Your task to perform on an android device: toggle pop-ups in chrome Image 0: 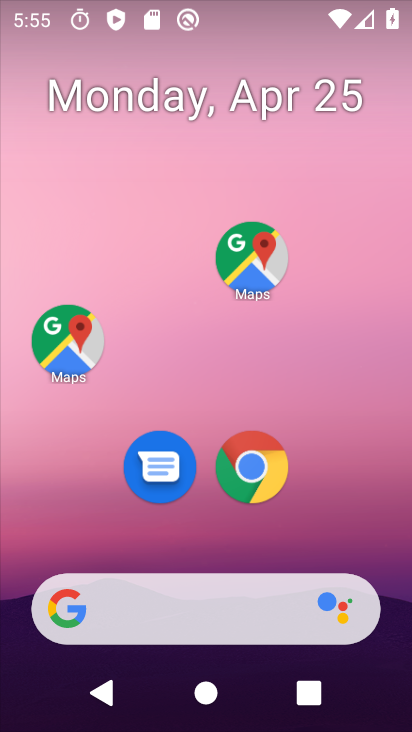
Step 0: drag from (266, 598) to (386, 4)
Your task to perform on an android device: toggle pop-ups in chrome Image 1: 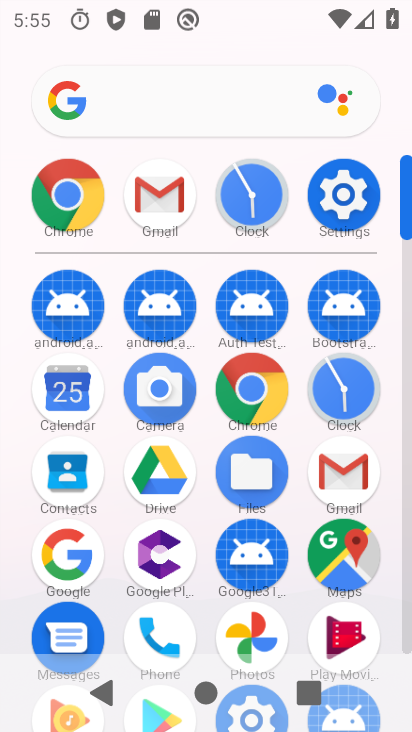
Step 1: click (239, 389)
Your task to perform on an android device: toggle pop-ups in chrome Image 2: 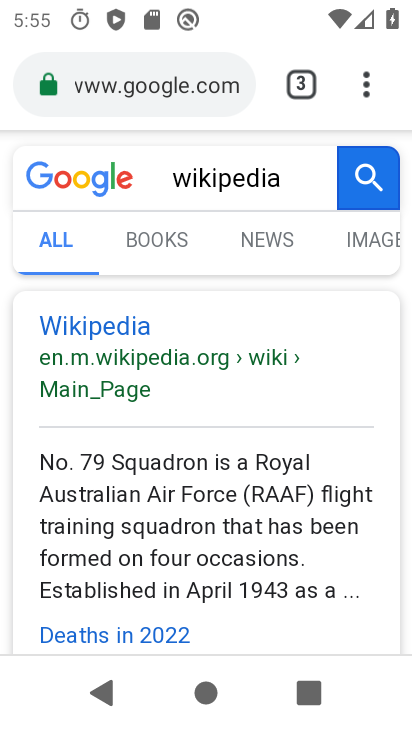
Step 2: drag from (366, 82) to (202, 523)
Your task to perform on an android device: toggle pop-ups in chrome Image 3: 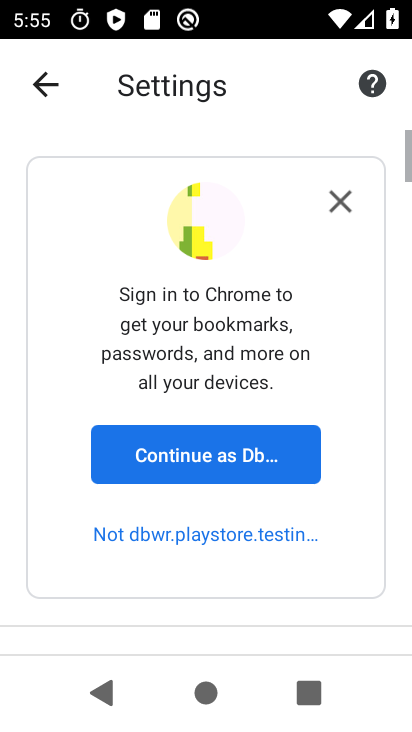
Step 3: drag from (306, 616) to (326, 5)
Your task to perform on an android device: toggle pop-ups in chrome Image 4: 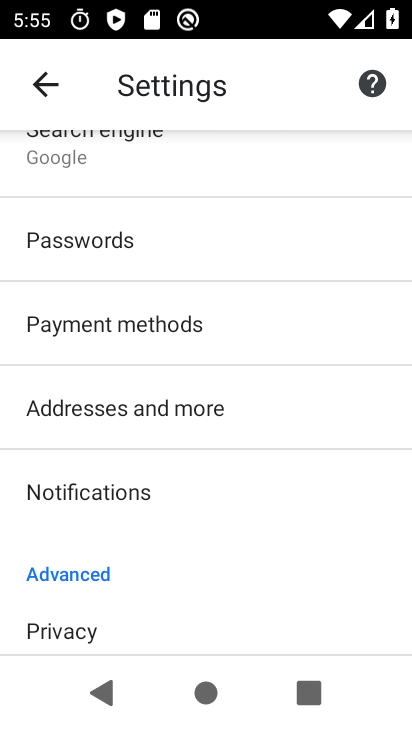
Step 4: drag from (301, 596) to (334, 105)
Your task to perform on an android device: toggle pop-ups in chrome Image 5: 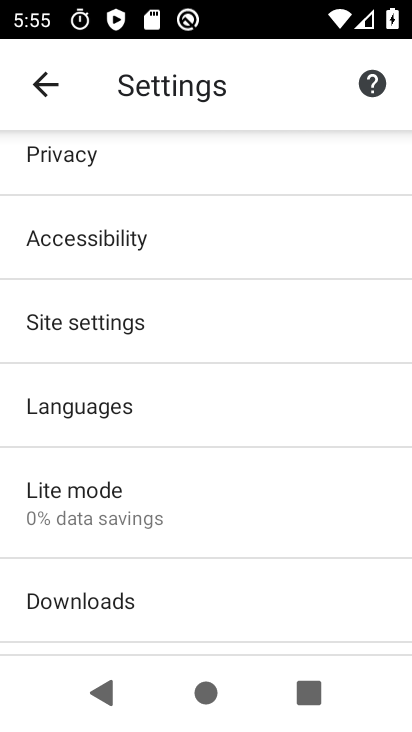
Step 5: click (202, 339)
Your task to perform on an android device: toggle pop-ups in chrome Image 6: 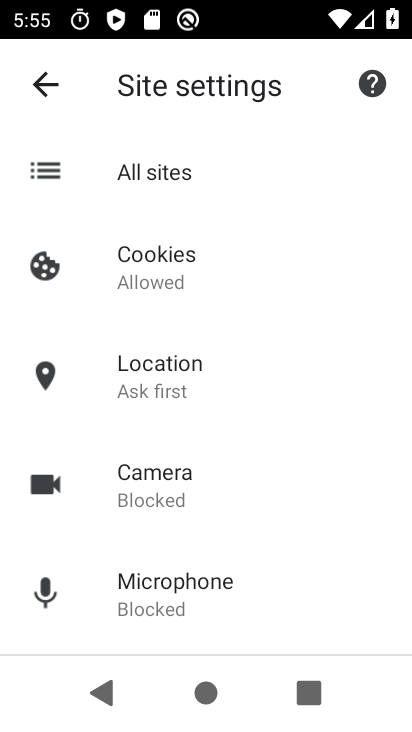
Step 6: drag from (254, 593) to (219, 84)
Your task to perform on an android device: toggle pop-ups in chrome Image 7: 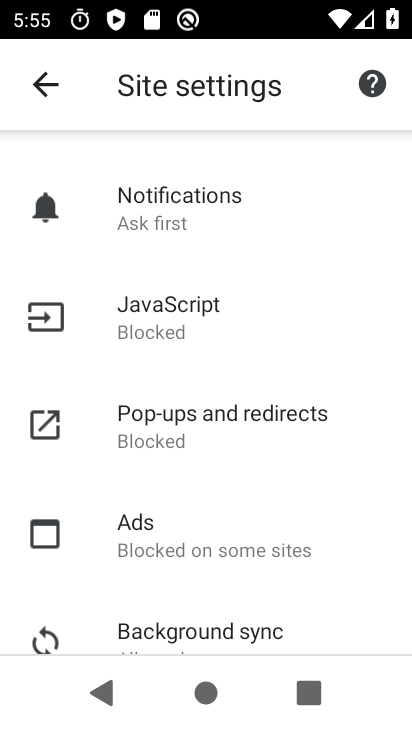
Step 7: click (307, 426)
Your task to perform on an android device: toggle pop-ups in chrome Image 8: 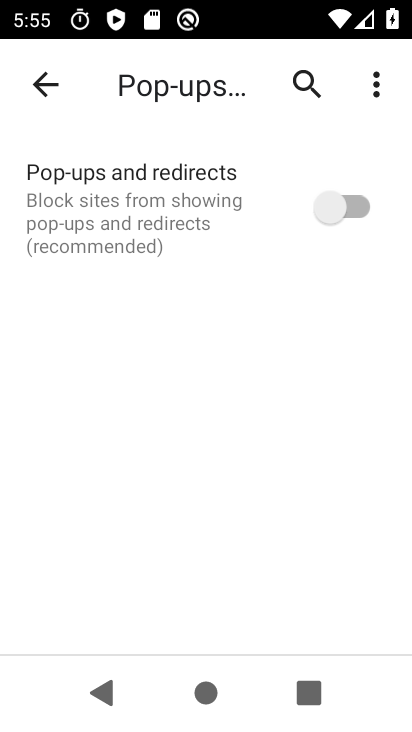
Step 8: click (356, 203)
Your task to perform on an android device: toggle pop-ups in chrome Image 9: 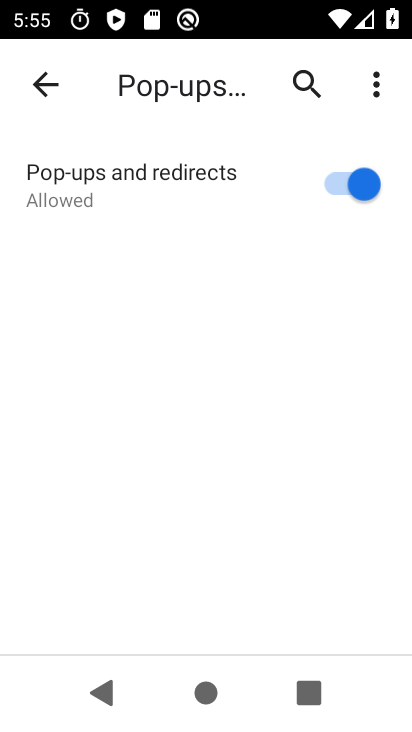
Step 9: task complete